Your task to perform on an android device: change alarm snooze length Image 0: 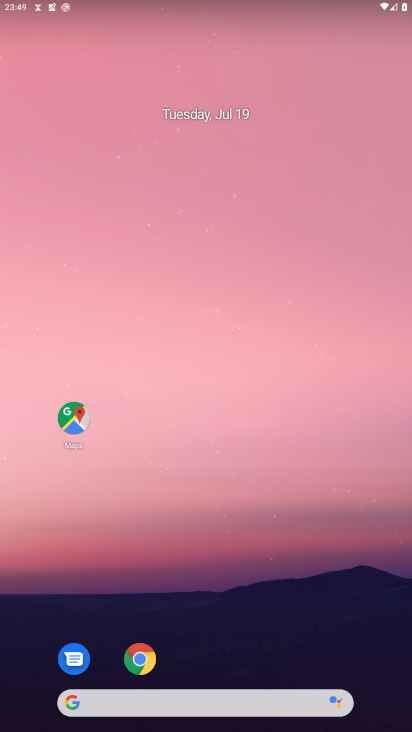
Step 0: drag from (323, 588) to (263, 93)
Your task to perform on an android device: change alarm snooze length Image 1: 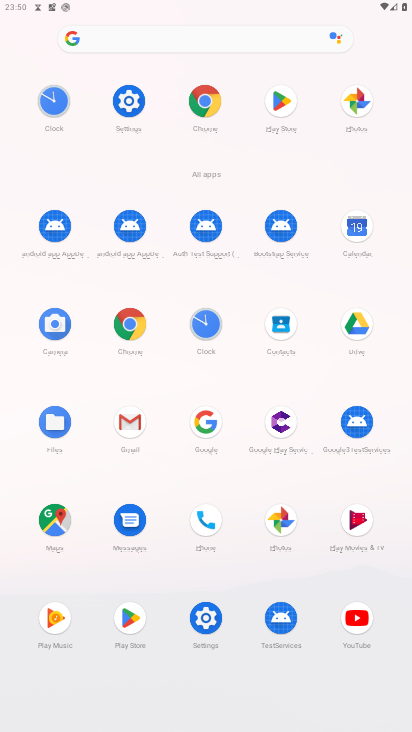
Step 1: click (203, 331)
Your task to perform on an android device: change alarm snooze length Image 2: 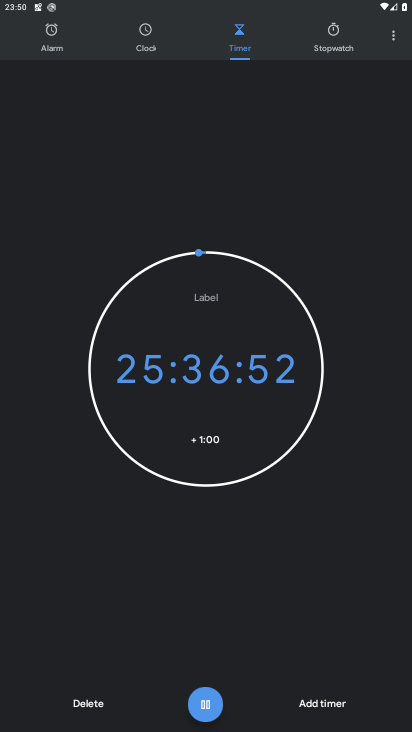
Step 2: click (399, 36)
Your task to perform on an android device: change alarm snooze length Image 3: 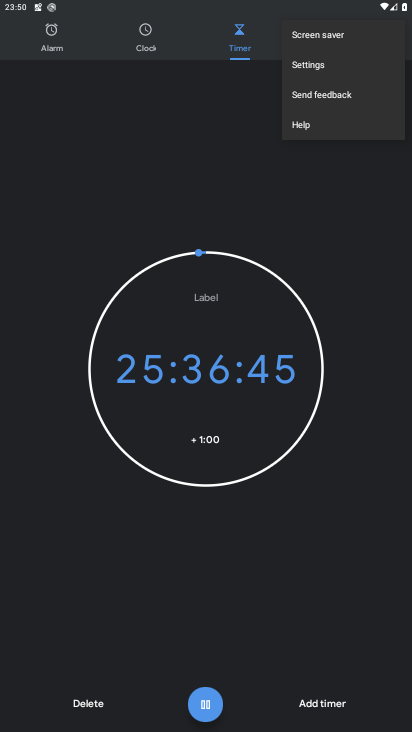
Step 3: click (309, 70)
Your task to perform on an android device: change alarm snooze length Image 4: 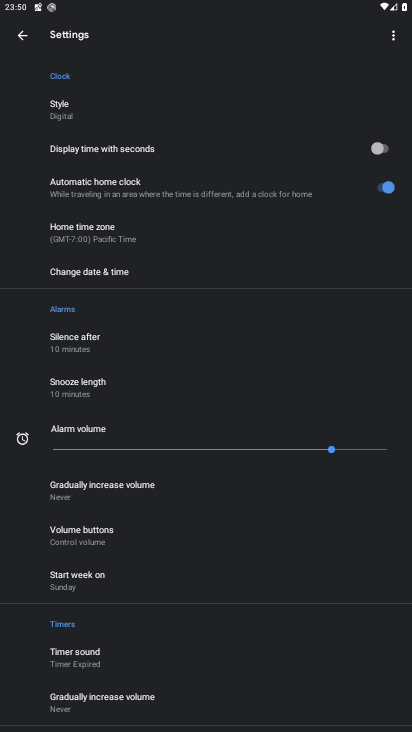
Step 4: click (113, 387)
Your task to perform on an android device: change alarm snooze length Image 5: 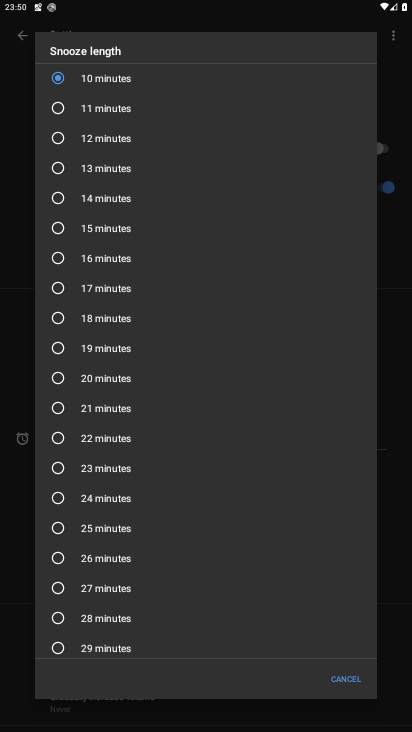
Step 5: click (99, 444)
Your task to perform on an android device: change alarm snooze length Image 6: 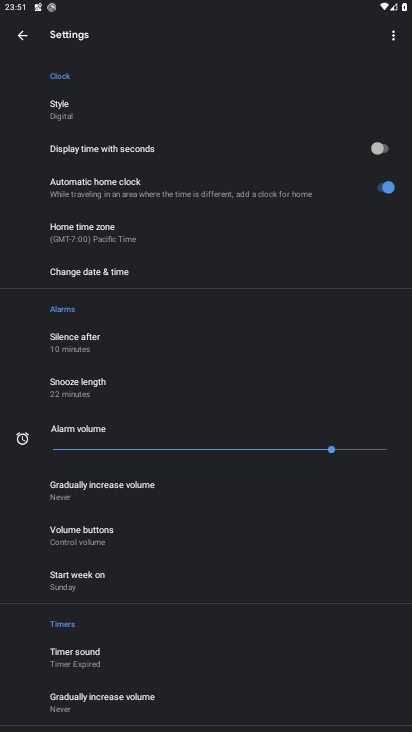
Step 6: task complete